Your task to perform on an android device: See recent photos Image 0: 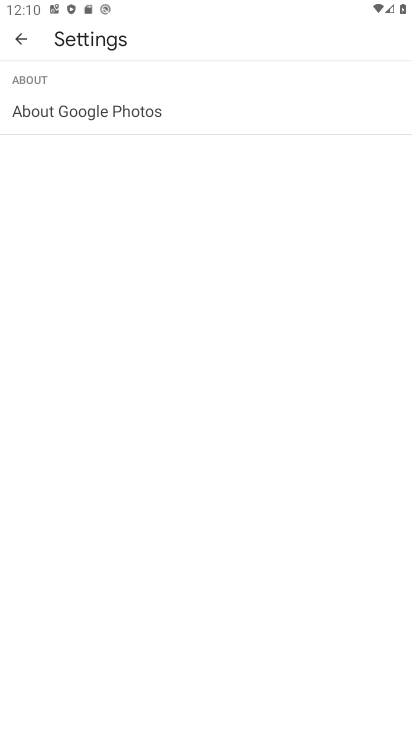
Step 0: press home button
Your task to perform on an android device: See recent photos Image 1: 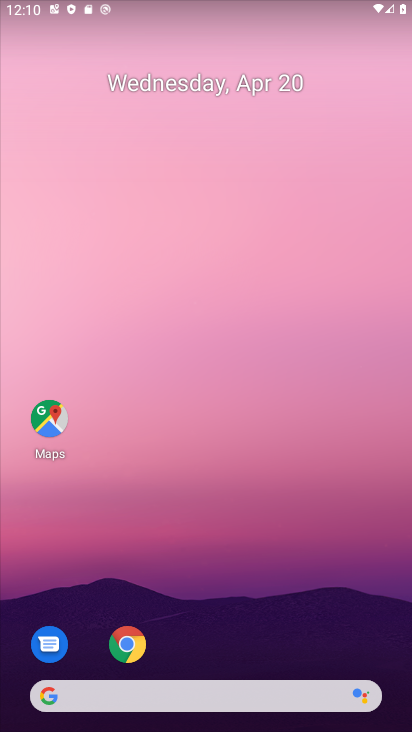
Step 1: drag from (262, 654) to (291, 0)
Your task to perform on an android device: See recent photos Image 2: 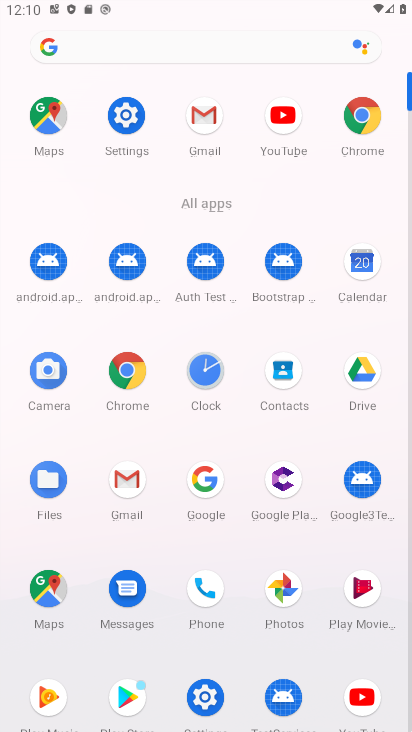
Step 2: click (278, 581)
Your task to perform on an android device: See recent photos Image 3: 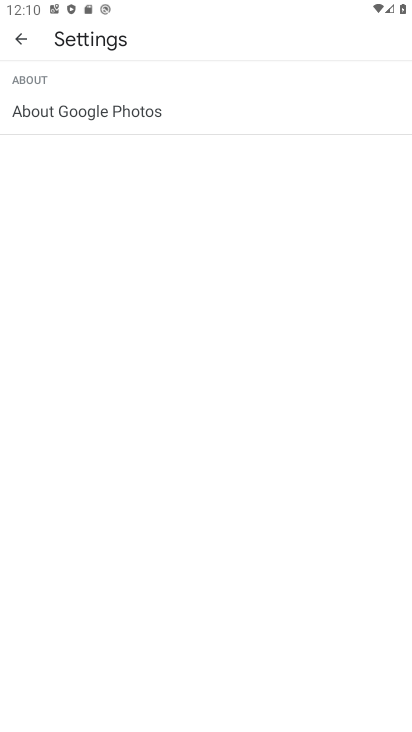
Step 3: click (22, 33)
Your task to perform on an android device: See recent photos Image 4: 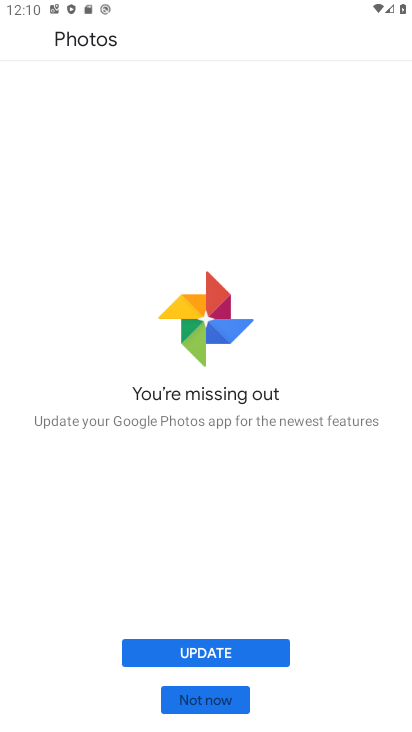
Step 4: click (219, 701)
Your task to perform on an android device: See recent photos Image 5: 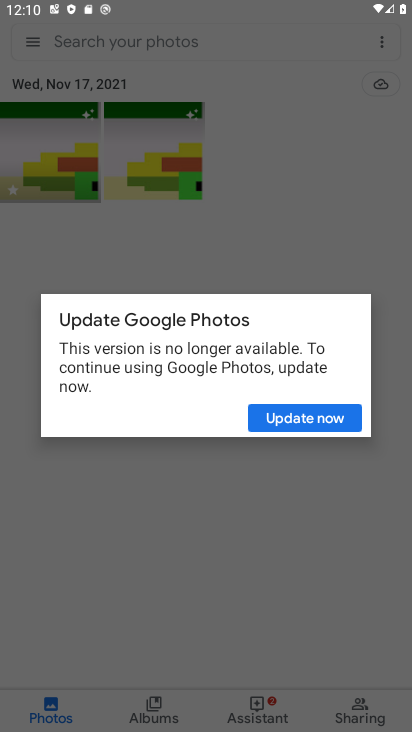
Step 5: click (316, 415)
Your task to perform on an android device: See recent photos Image 6: 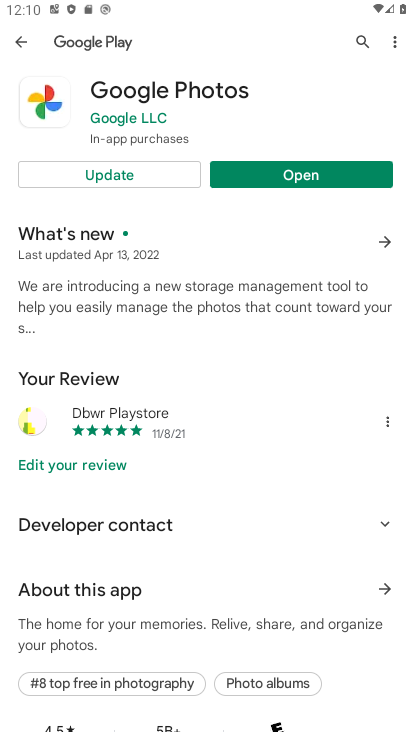
Step 6: click (347, 166)
Your task to perform on an android device: See recent photos Image 7: 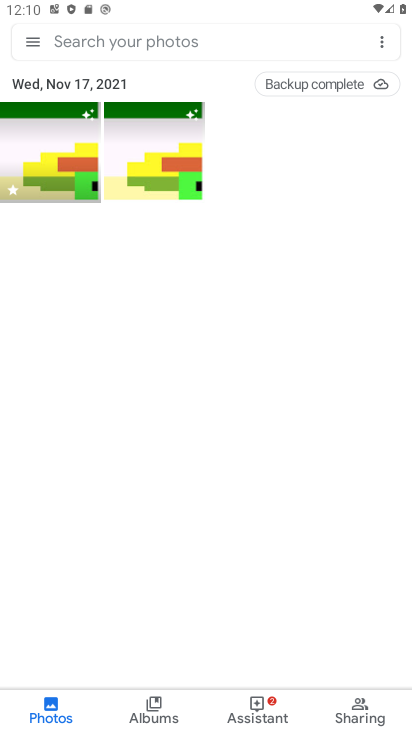
Step 7: click (75, 147)
Your task to perform on an android device: See recent photos Image 8: 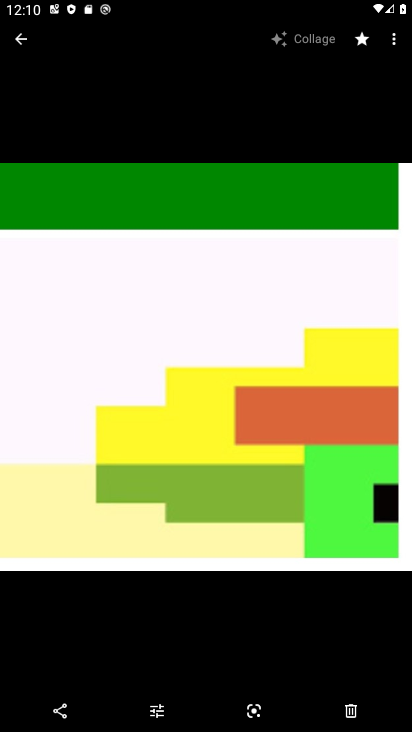
Step 8: task complete